Your task to perform on an android device: Go to CNN.com Image 0: 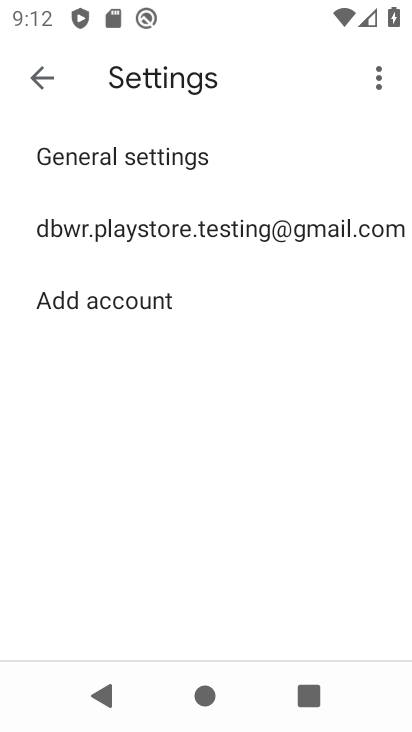
Step 0: press home button
Your task to perform on an android device: Go to CNN.com Image 1: 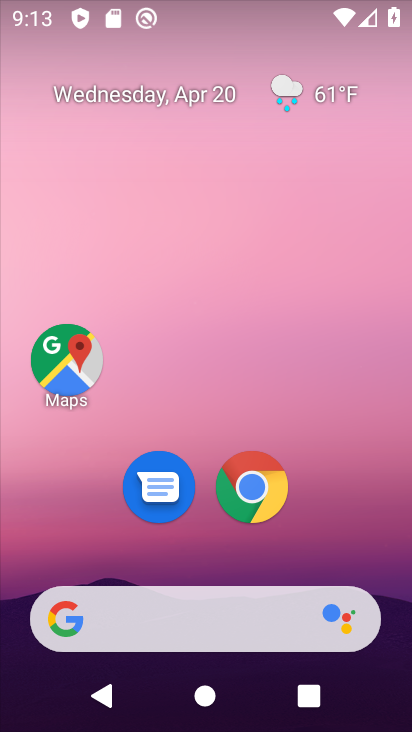
Step 1: click (263, 496)
Your task to perform on an android device: Go to CNN.com Image 2: 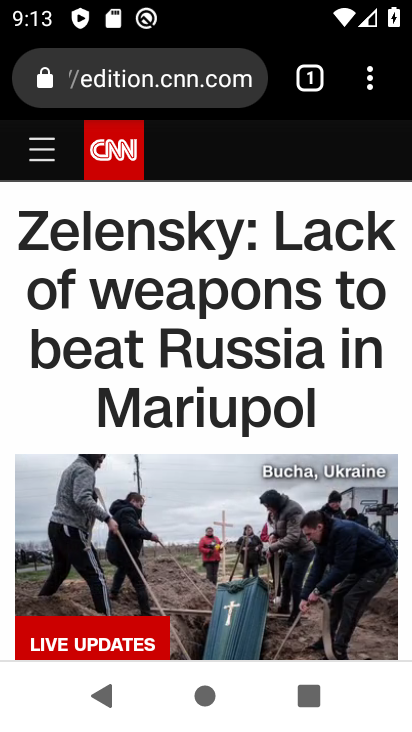
Step 2: task complete